Your task to perform on an android device: Find coffee shops on Maps Image 0: 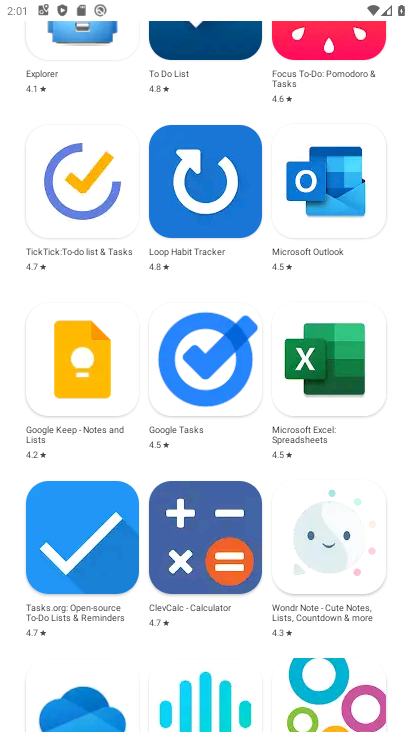
Step 0: press home button
Your task to perform on an android device: Find coffee shops on Maps Image 1: 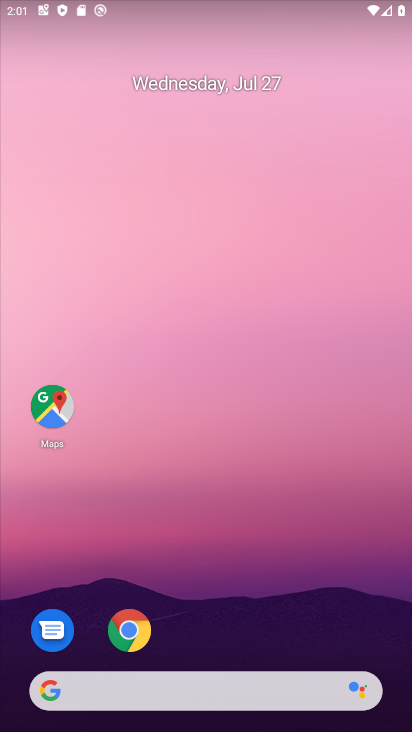
Step 1: click (52, 408)
Your task to perform on an android device: Find coffee shops on Maps Image 2: 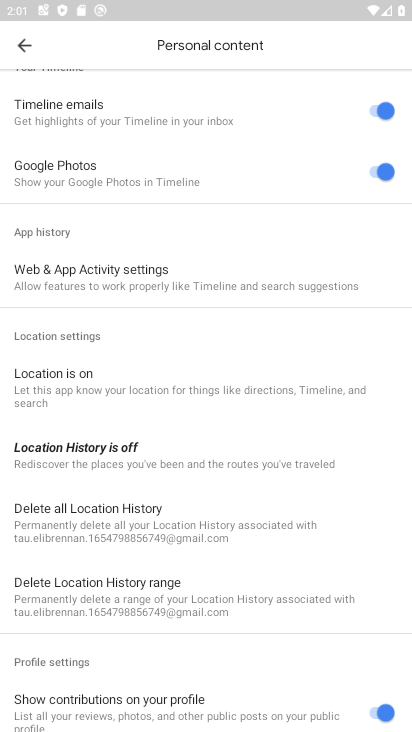
Step 2: press back button
Your task to perform on an android device: Find coffee shops on Maps Image 3: 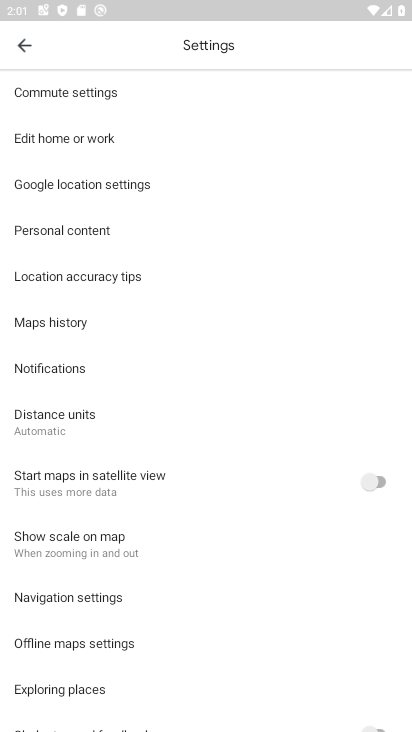
Step 3: press back button
Your task to perform on an android device: Find coffee shops on Maps Image 4: 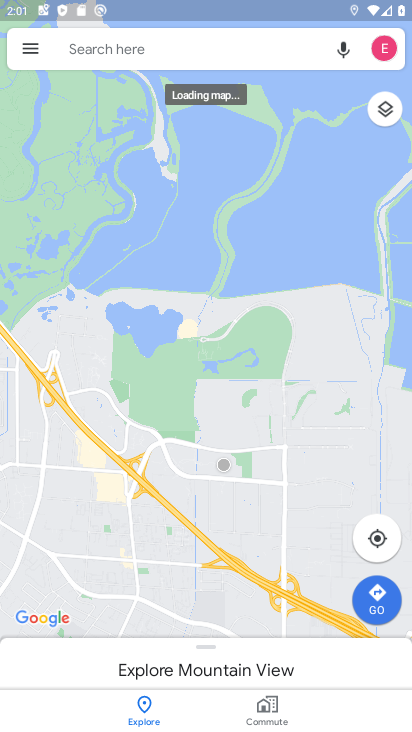
Step 4: click (113, 51)
Your task to perform on an android device: Find coffee shops on Maps Image 5: 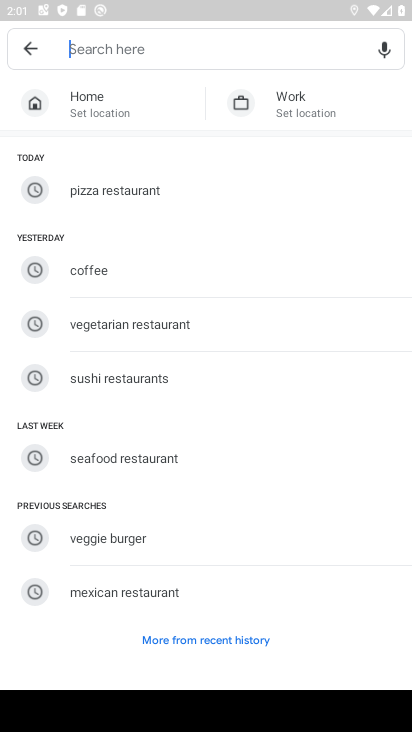
Step 5: type "coffee shops"
Your task to perform on an android device: Find coffee shops on Maps Image 6: 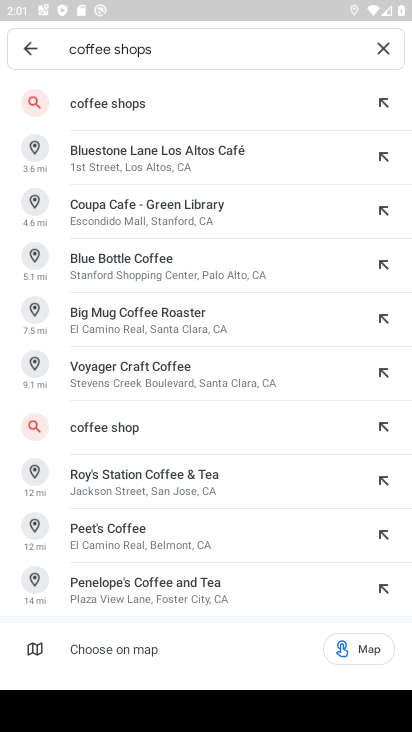
Step 6: click (109, 103)
Your task to perform on an android device: Find coffee shops on Maps Image 7: 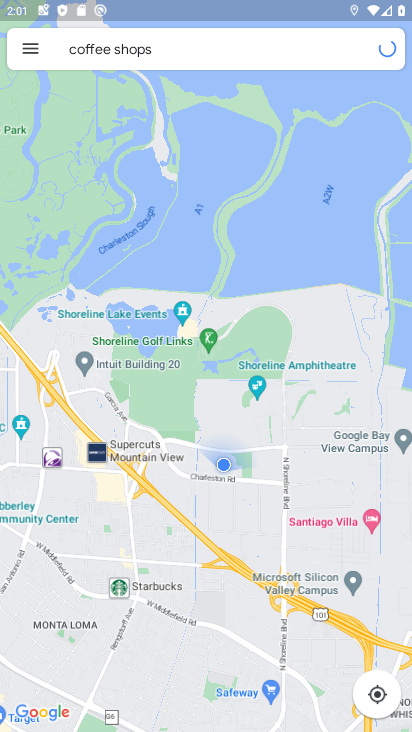
Step 7: task complete